Your task to perform on an android device: delete location history Image 0: 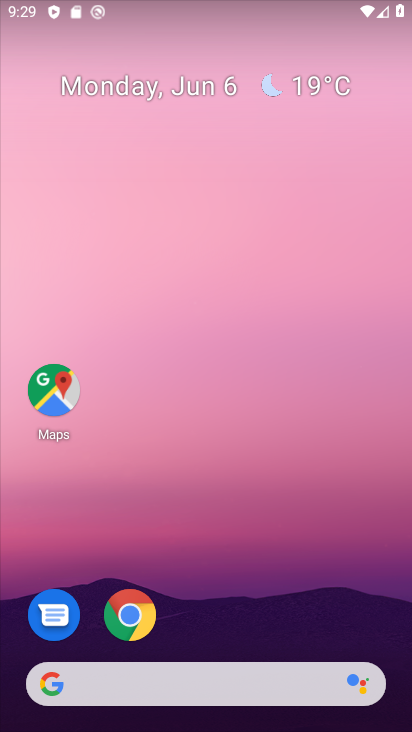
Step 0: drag from (309, 620) to (282, 108)
Your task to perform on an android device: delete location history Image 1: 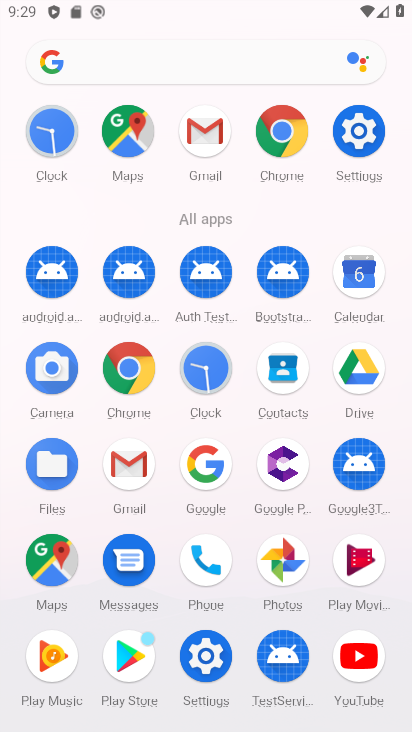
Step 1: click (385, 136)
Your task to perform on an android device: delete location history Image 2: 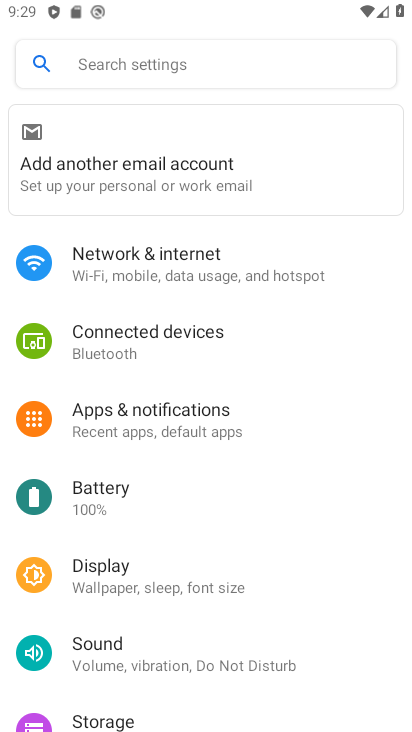
Step 2: drag from (178, 632) to (182, 187)
Your task to perform on an android device: delete location history Image 3: 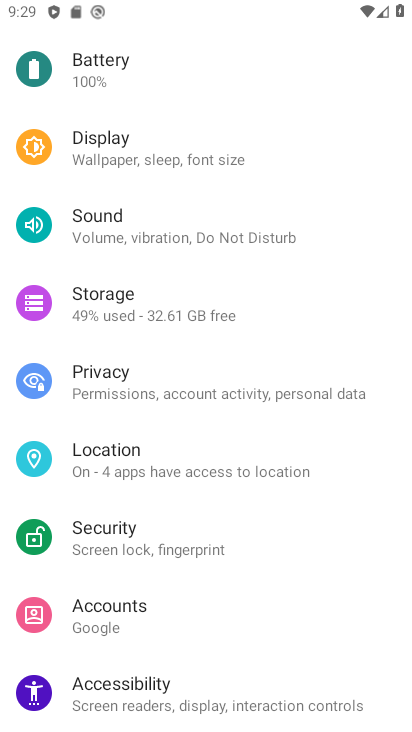
Step 3: click (184, 470)
Your task to perform on an android device: delete location history Image 4: 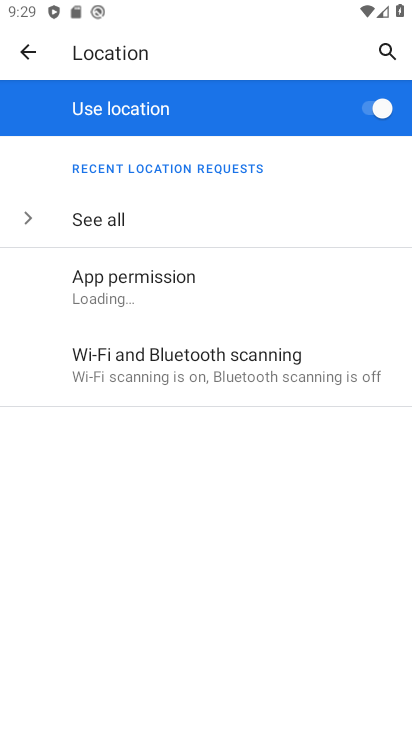
Step 4: task complete